Your task to perform on an android device: toggle javascript in the chrome app Image 0: 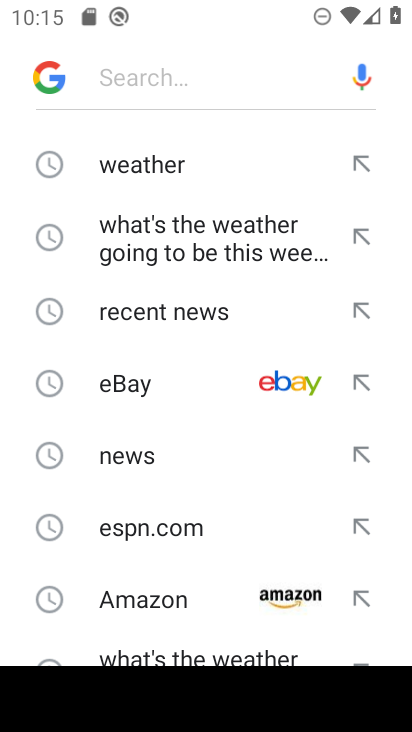
Step 0: press back button
Your task to perform on an android device: toggle javascript in the chrome app Image 1: 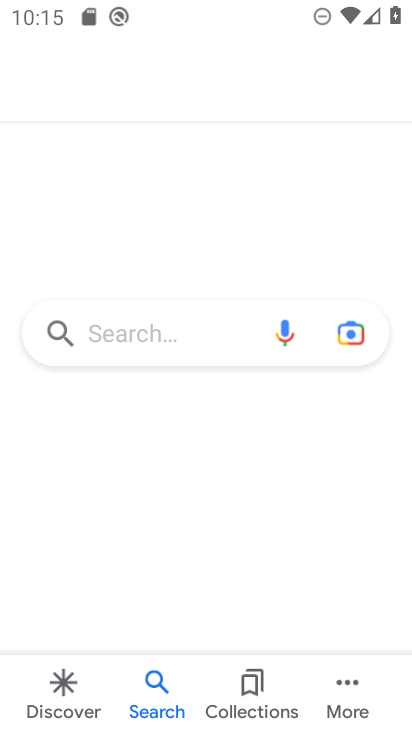
Step 1: press back button
Your task to perform on an android device: toggle javascript in the chrome app Image 2: 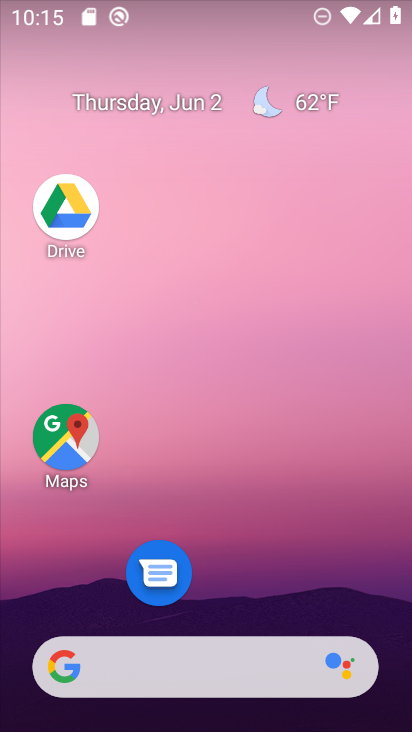
Step 2: drag from (239, 466) to (171, 6)
Your task to perform on an android device: toggle javascript in the chrome app Image 3: 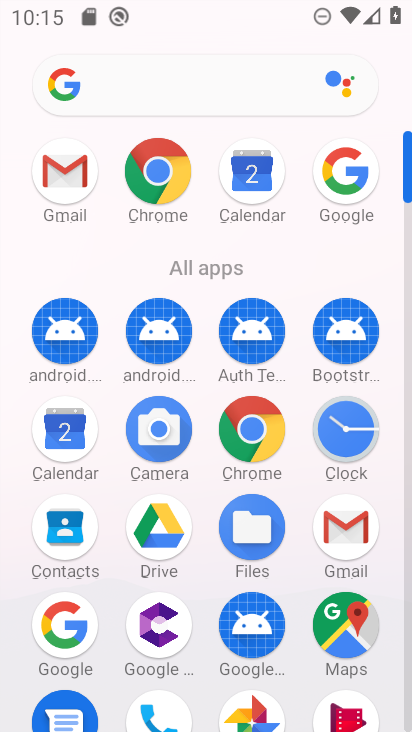
Step 3: click (143, 156)
Your task to perform on an android device: toggle javascript in the chrome app Image 4: 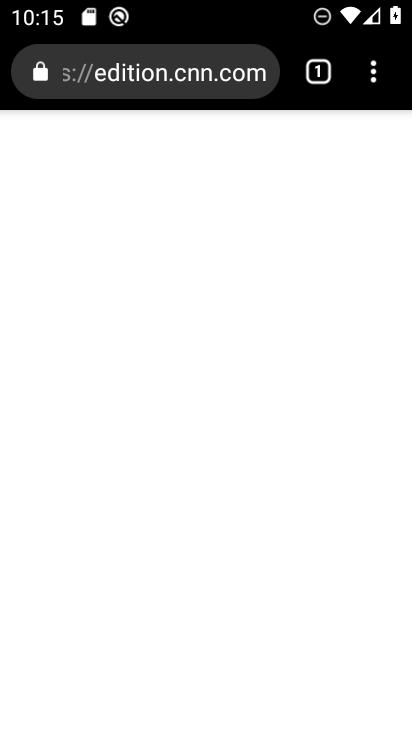
Step 4: drag from (377, 70) to (117, 585)
Your task to perform on an android device: toggle javascript in the chrome app Image 5: 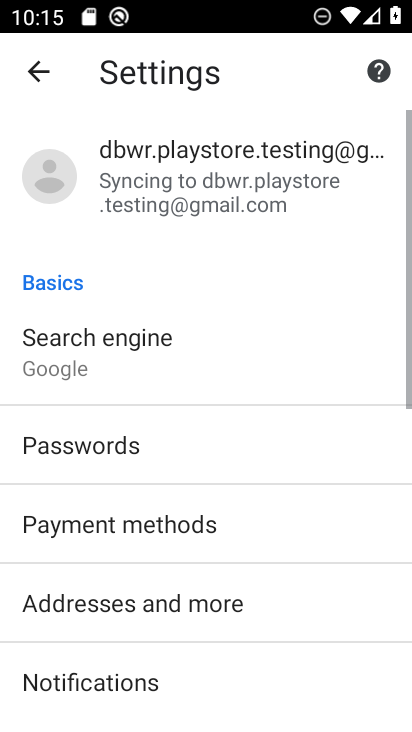
Step 5: drag from (118, 583) to (61, 168)
Your task to perform on an android device: toggle javascript in the chrome app Image 6: 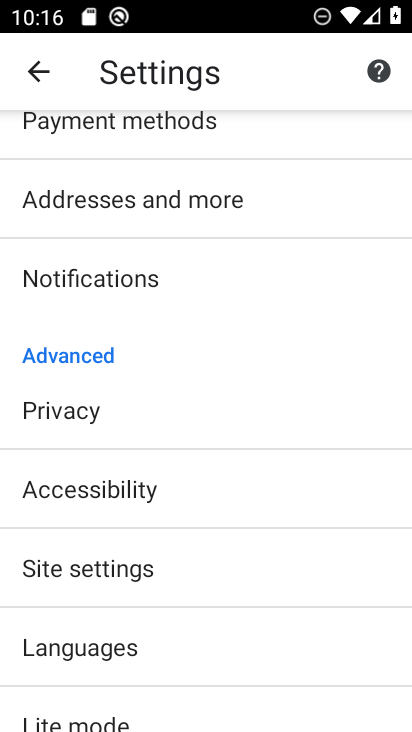
Step 6: click (146, 592)
Your task to perform on an android device: toggle javascript in the chrome app Image 7: 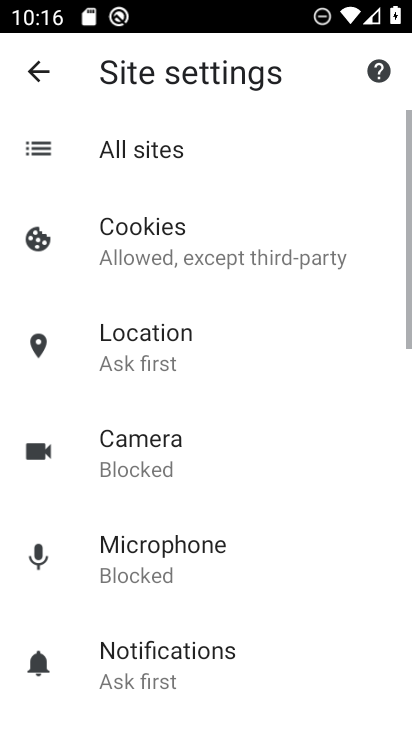
Step 7: drag from (146, 592) to (72, 69)
Your task to perform on an android device: toggle javascript in the chrome app Image 8: 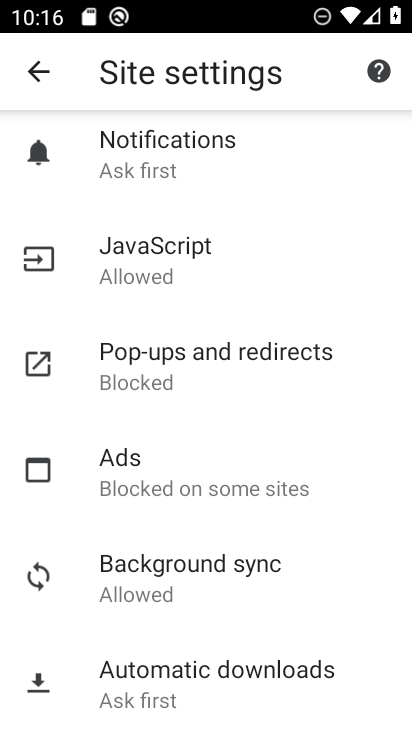
Step 8: click (129, 281)
Your task to perform on an android device: toggle javascript in the chrome app Image 9: 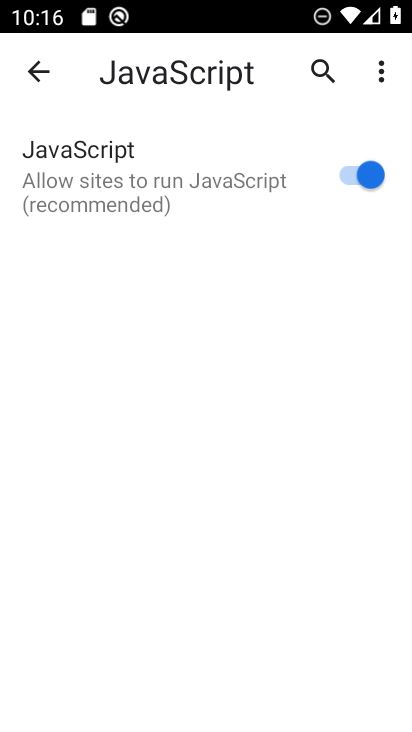
Step 9: click (323, 179)
Your task to perform on an android device: toggle javascript in the chrome app Image 10: 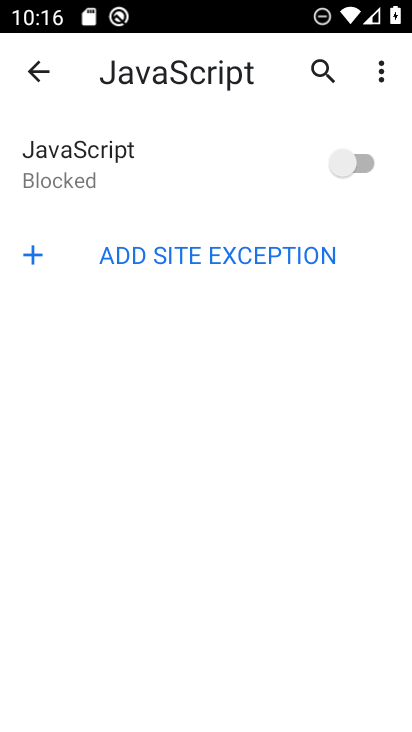
Step 10: task complete